Your task to perform on an android device: check storage Image 0: 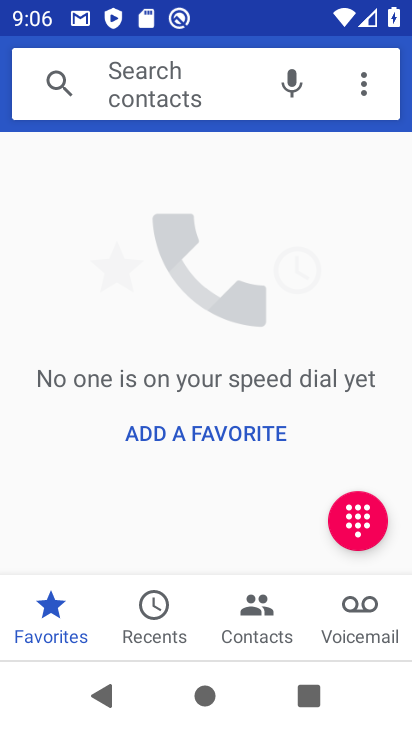
Step 0: press home button
Your task to perform on an android device: check storage Image 1: 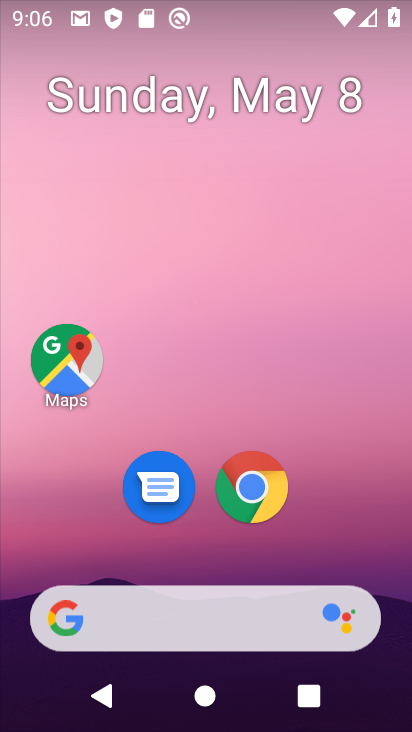
Step 1: drag from (343, 548) to (309, 0)
Your task to perform on an android device: check storage Image 2: 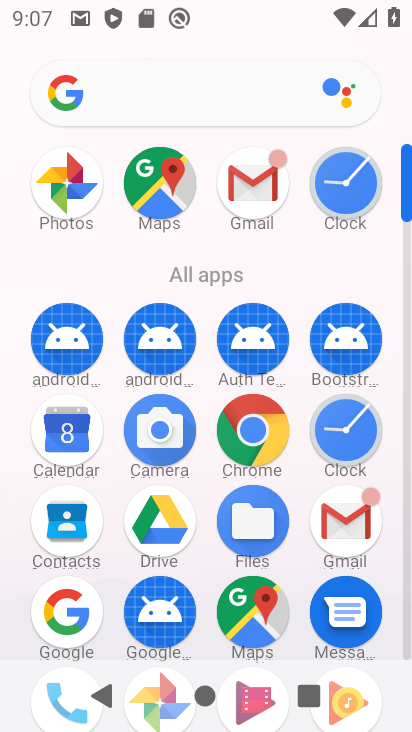
Step 2: drag from (98, 624) to (95, 126)
Your task to perform on an android device: check storage Image 3: 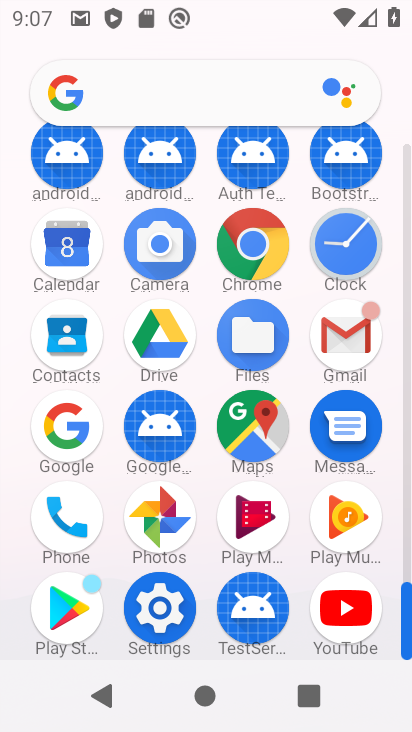
Step 3: click (158, 623)
Your task to perform on an android device: check storage Image 4: 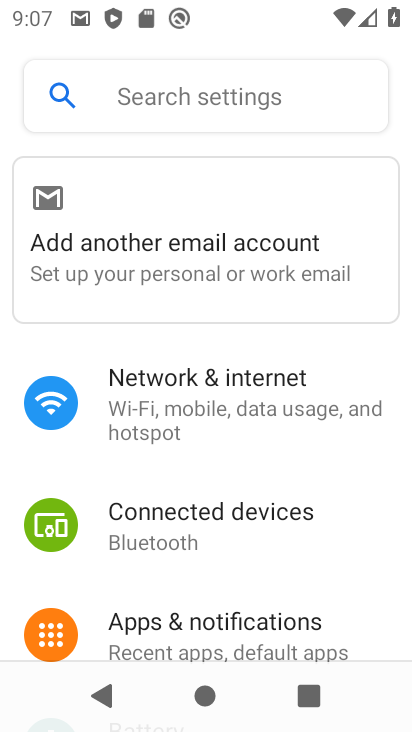
Step 4: drag from (181, 622) to (205, 105)
Your task to perform on an android device: check storage Image 5: 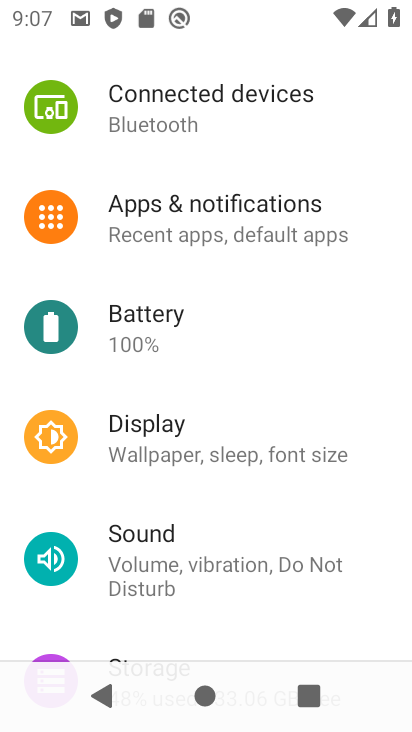
Step 5: drag from (215, 551) to (248, 134)
Your task to perform on an android device: check storage Image 6: 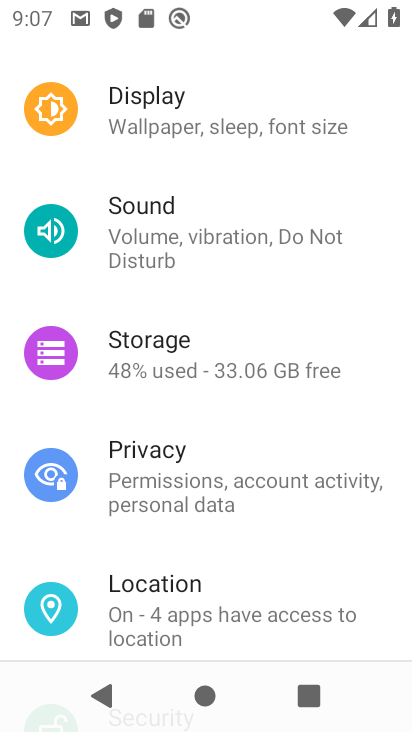
Step 6: click (199, 343)
Your task to perform on an android device: check storage Image 7: 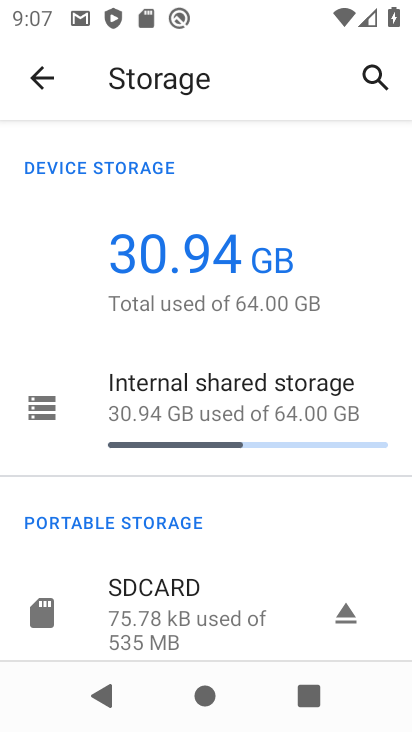
Step 7: click (175, 404)
Your task to perform on an android device: check storage Image 8: 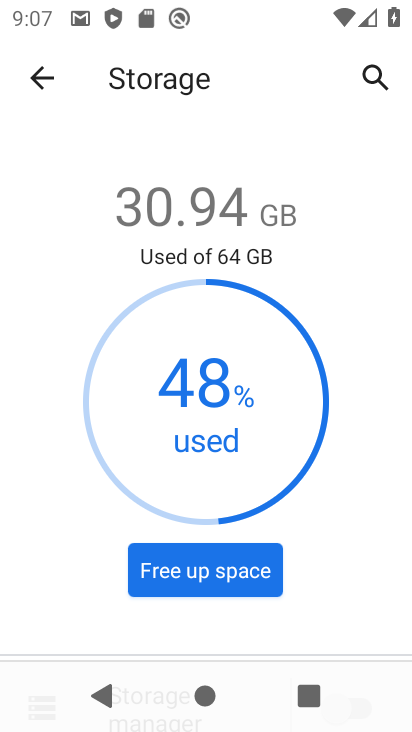
Step 8: task complete